Your task to perform on an android device: Go to sound settings Image 0: 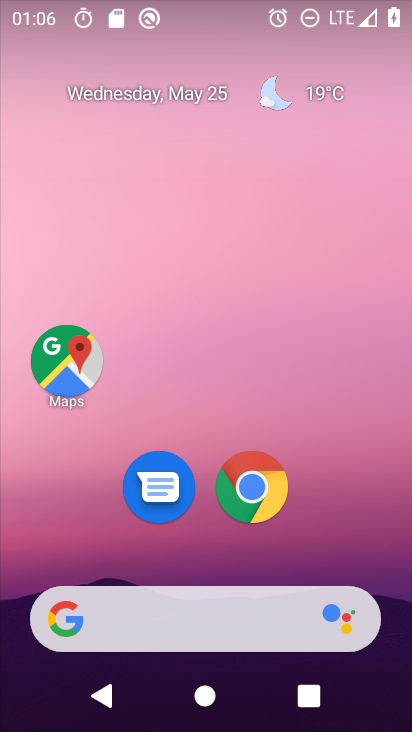
Step 0: drag from (355, 560) to (364, 0)
Your task to perform on an android device: Go to sound settings Image 1: 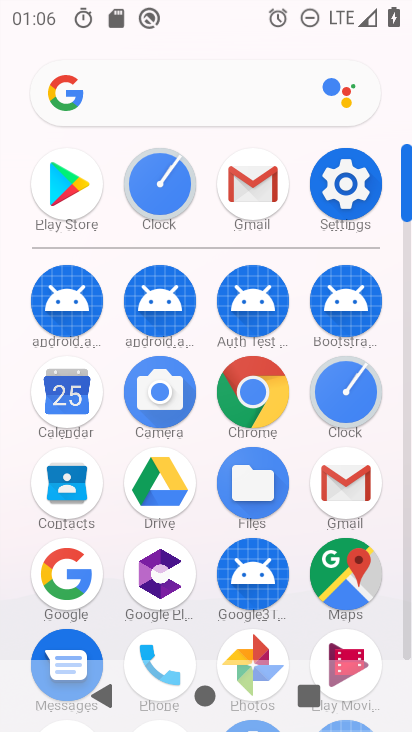
Step 1: click (341, 183)
Your task to perform on an android device: Go to sound settings Image 2: 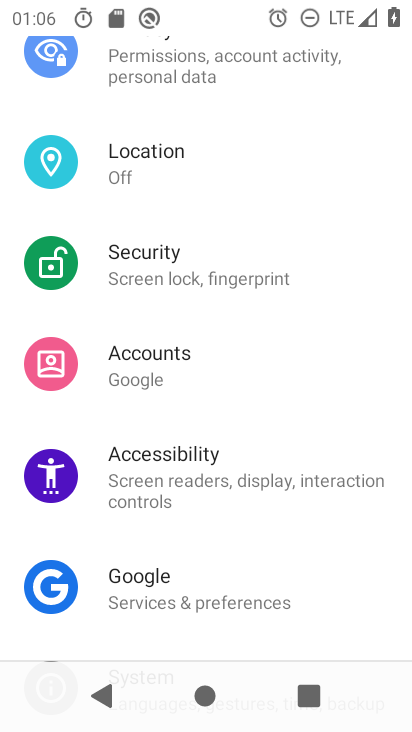
Step 2: drag from (341, 183) to (320, 469)
Your task to perform on an android device: Go to sound settings Image 3: 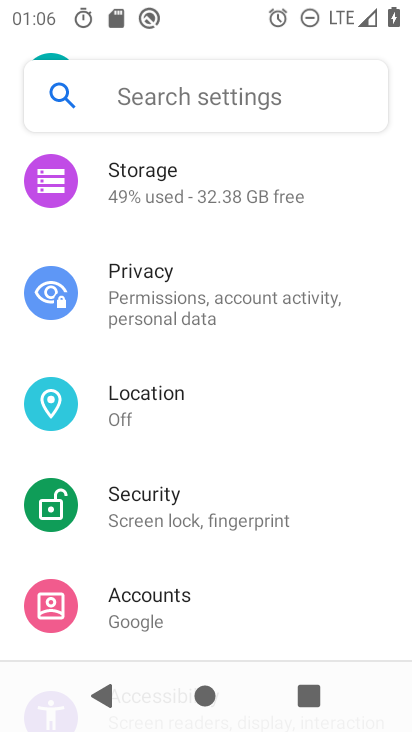
Step 3: drag from (294, 269) to (290, 456)
Your task to perform on an android device: Go to sound settings Image 4: 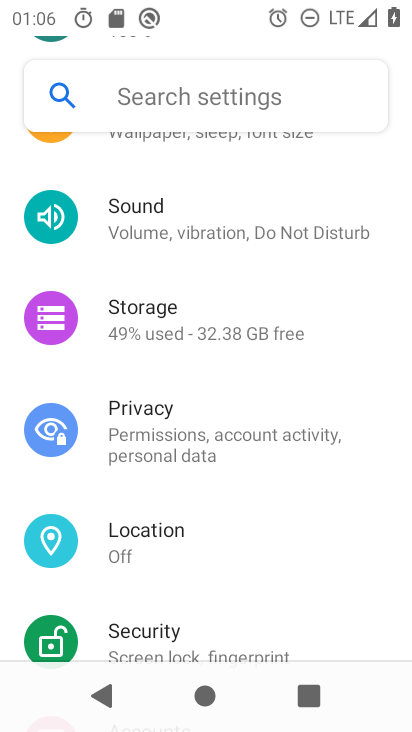
Step 4: click (147, 225)
Your task to perform on an android device: Go to sound settings Image 5: 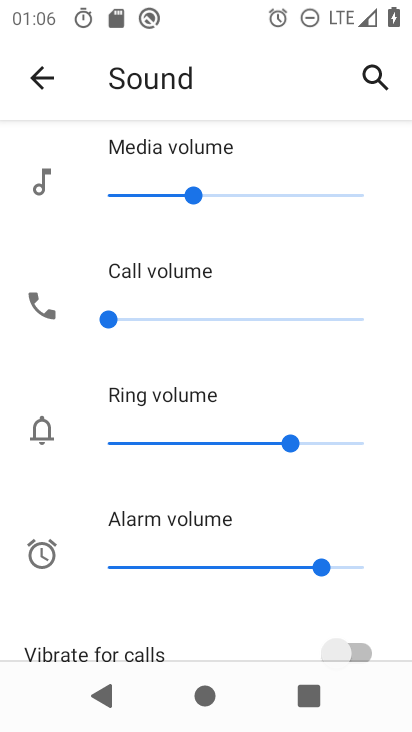
Step 5: task complete